Your task to perform on an android device: delete browsing data in the chrome app Image 0: 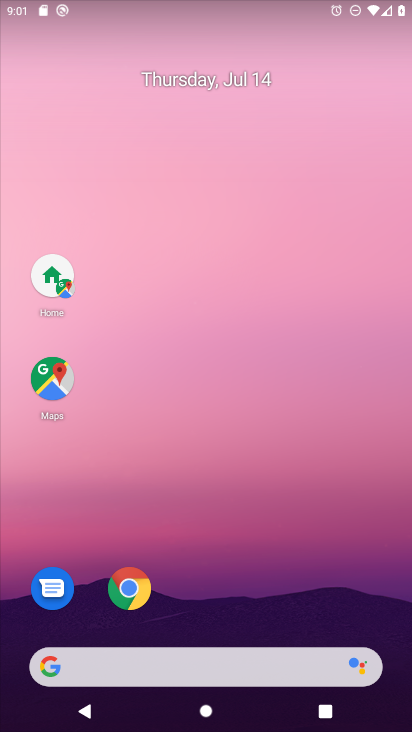
Step 0: click (128, 594)
Your task to perform on an android device: delete browsing data in the chrome app Image 1: 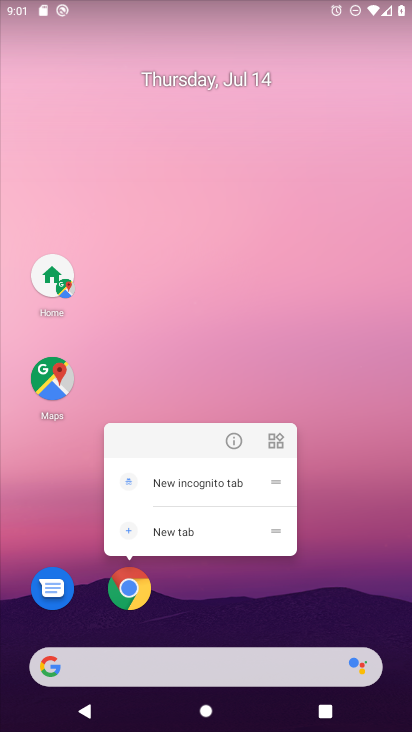
Step 1: click (128, 594)
Your task to perform on an android device: delete browsing data in the chrome app Image 2: 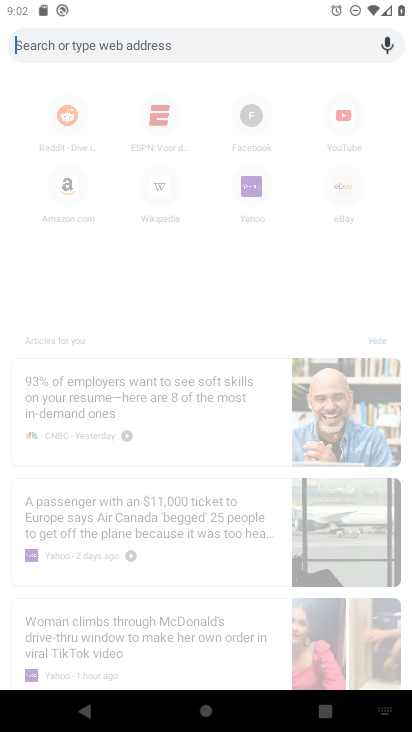
Step 2: click (51, 38)
Your task to perform on an android device: delete browsing data in the chrome app Image 3: 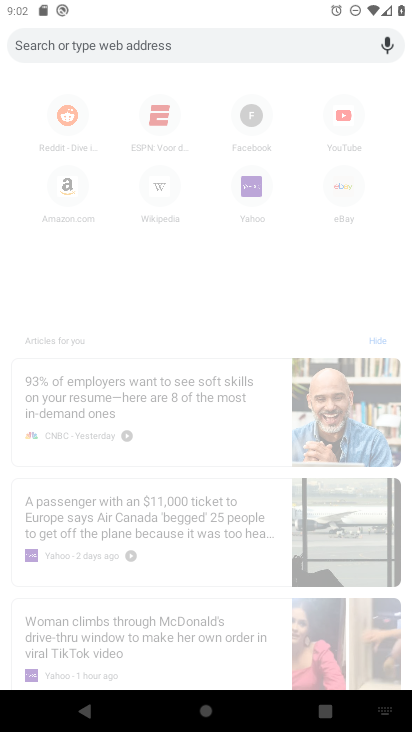
Step 3: task complete